Your task to perform on an android device: check android version Image 0: 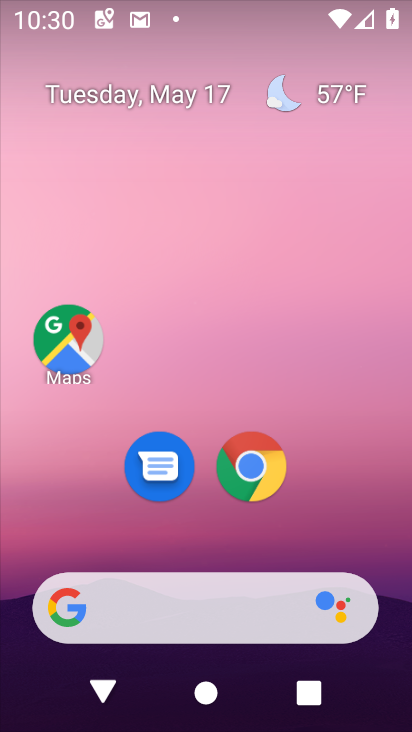
Step 0: drag from (254, 638) to (243, 151)
Your task to perform on an android device: check android version Image 1: 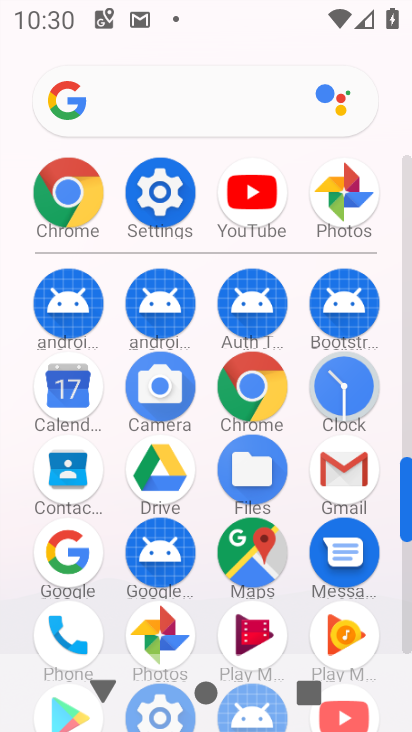
Step 1: click (172, 185)
Your task to perform on an android device: check android version Image 2: 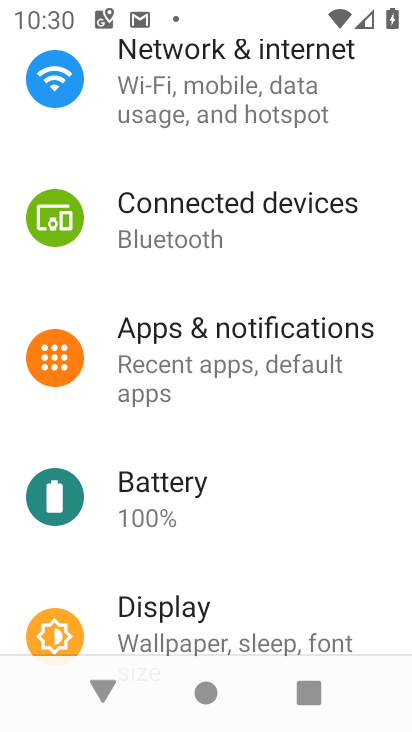
Step 2: drag from (180, 112) to (207, 249)
Your task to perform on an android device: check android version Image 3: 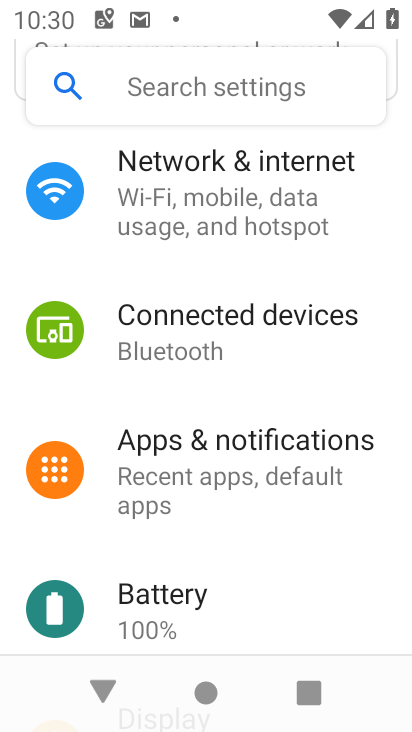
Step 3: click (183, 92)
Your task to perform on an android device: check android version Image 4: 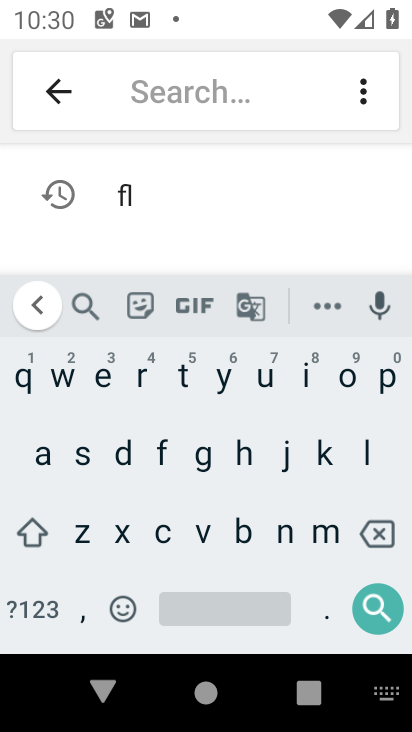
Step 4: click (46, 447)
Your task to perform on an android device: check android version Image 5: 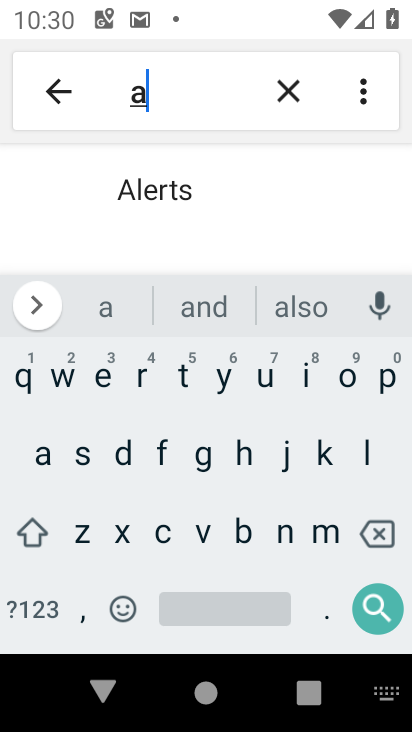
Step 5: click (290, 538)
Your task to perform on an android device: check android version Image 6: 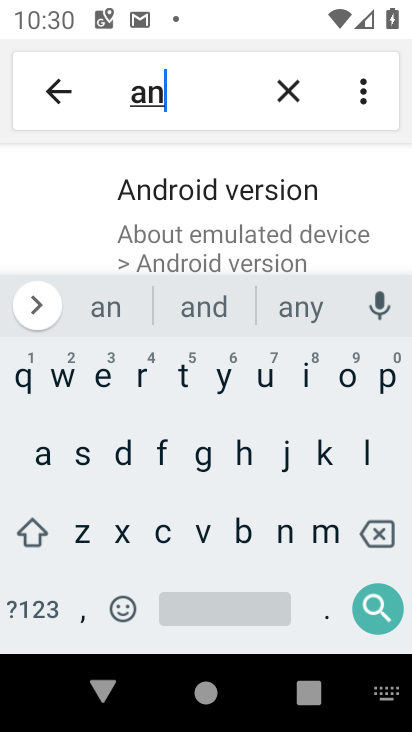
Step 6: click (232, 216)
Your task to perform on an android device: check android version Image 7: 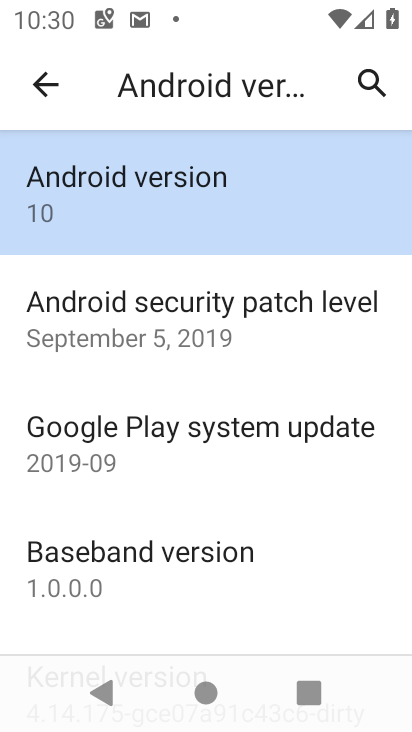
Step 7: click (161, 210)
Your task to perform on an android device: check android version Image 8: 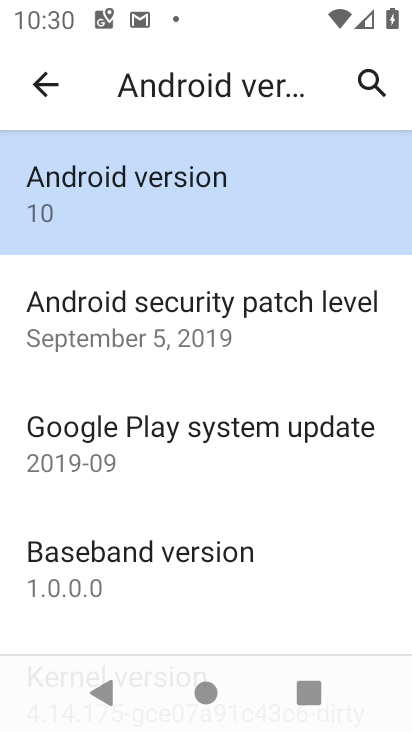
Step 8: task complete